Your task to perform on an android device: Go to eBay Image 0: 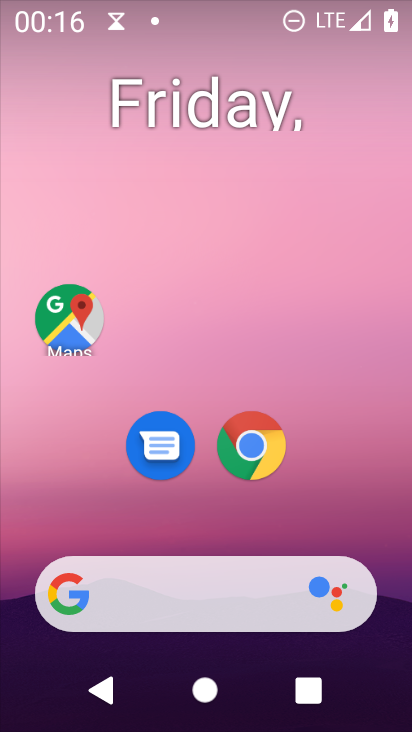
Step 0: click (252, 446)
Your task to perform on an android device: Go to eBay Image 1: 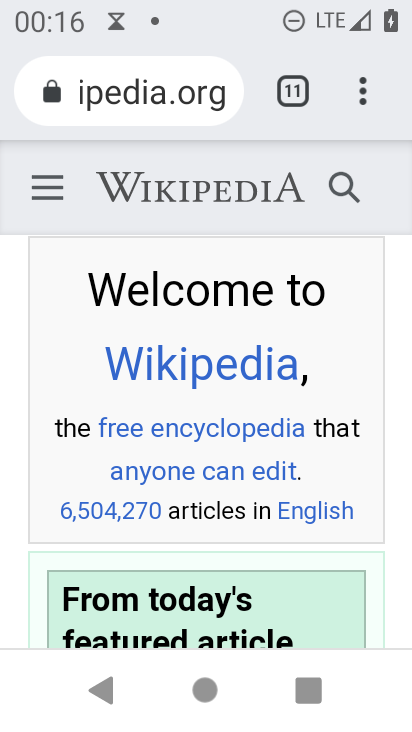
Step 1: click (363, 98)
Your task to perform on an android device: Go to eBay Image 2: 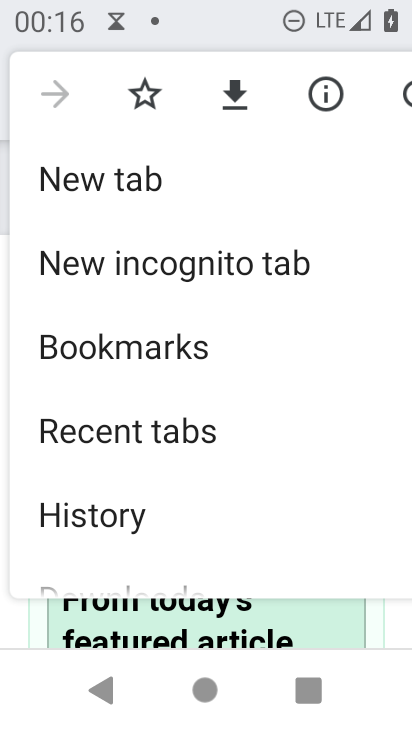
Step 2: click (142, 175)
Your task to perform on an android device: Go to eBay Image 3: 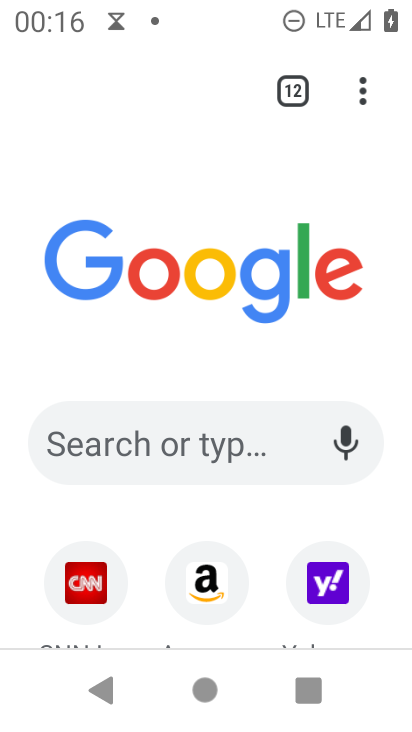
Step 3: drag from (151, 602) to (160, 349)
Your task to perform on an android device: Go to eBay Image 4: 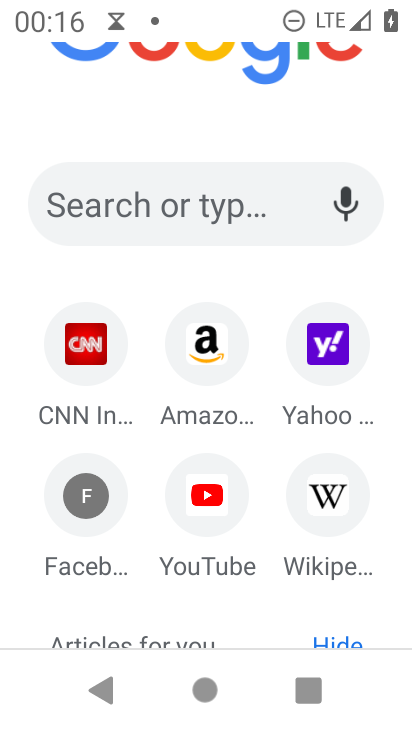
Step 4: click (196, 212)
Your task to perform on an android device: Go to eBay Image 5: 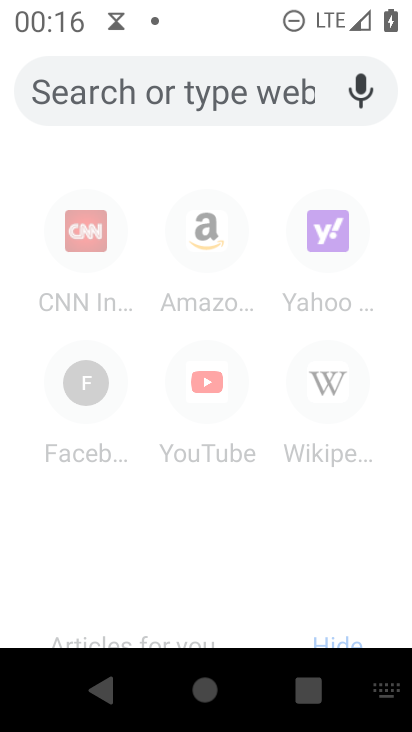
Step 5: type "eBay"
Your task to perform on an android device: Go to eBay Image 6: 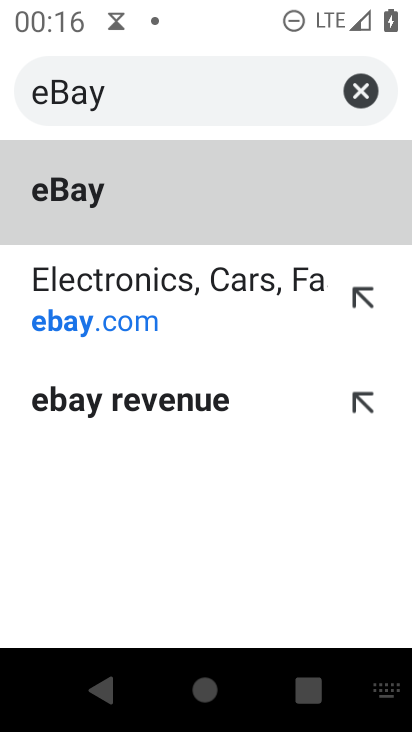
Step 6: click (222, 204)
Your task to perform on an android device: Go to eBay Image 7: 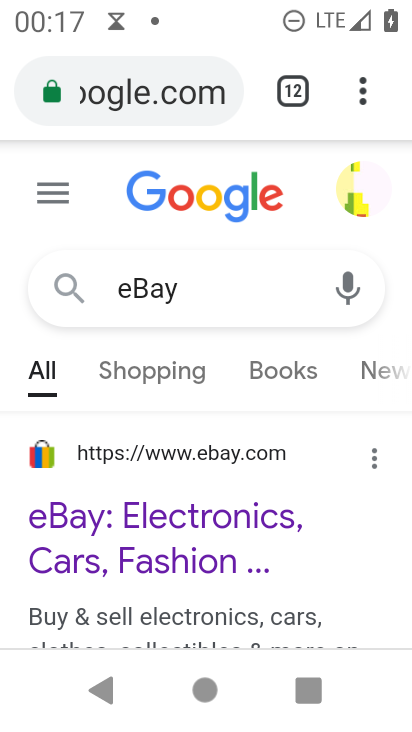
Step 7: click (153, 525)
Your task to perform on an android device: Go to eBay Image 8: 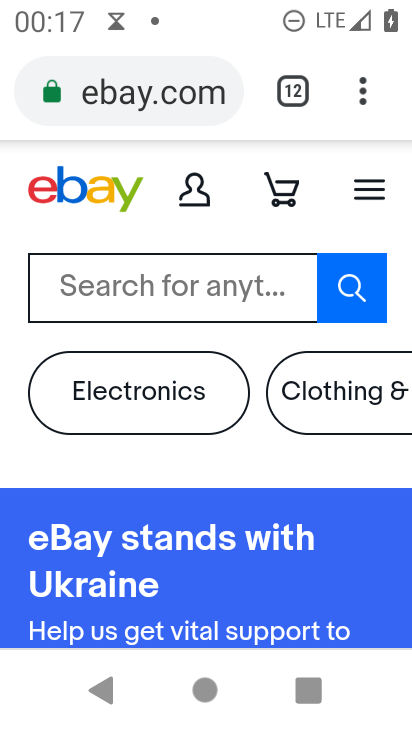
Step 8: task complete